Your task to perform on an android device: change notifications settings Image 0: 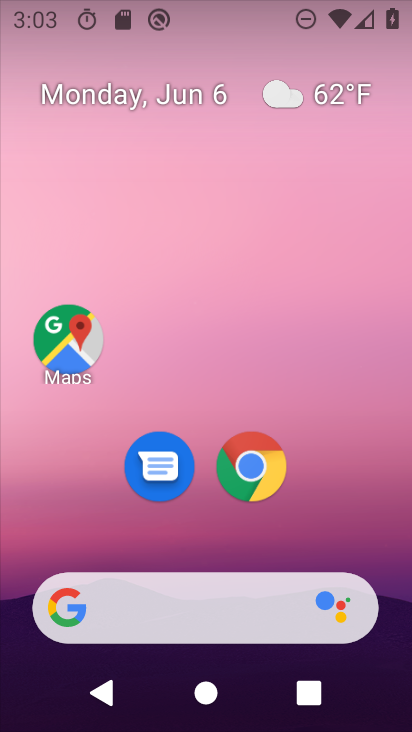
Step 0: drag from (234, 460) to (205, 167)
Your task to perform on an android device: change notifications settings Image 1: 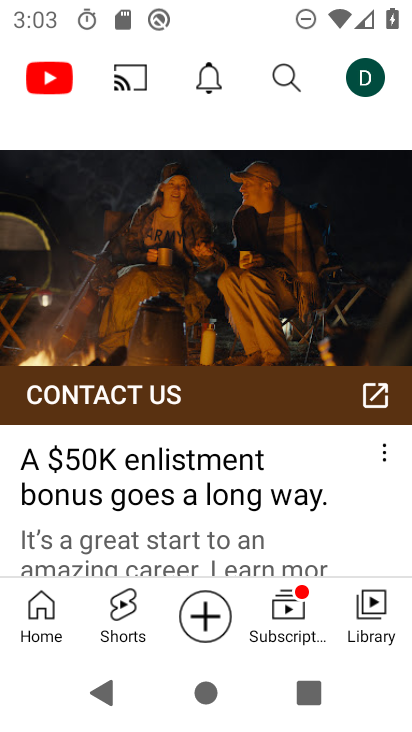
Step 1: press home button
Your task to perform on an android device: change notifications settings Image 2: 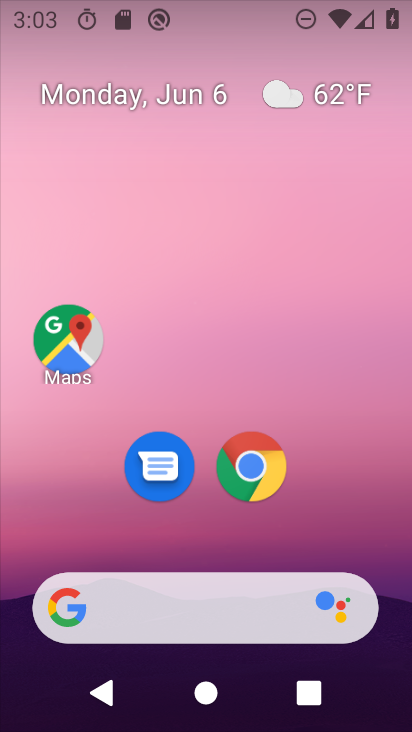
Step 2: drag from (223, 532) to (210, 48)
Your task to perform on an android device: change notifications settings Image 3: 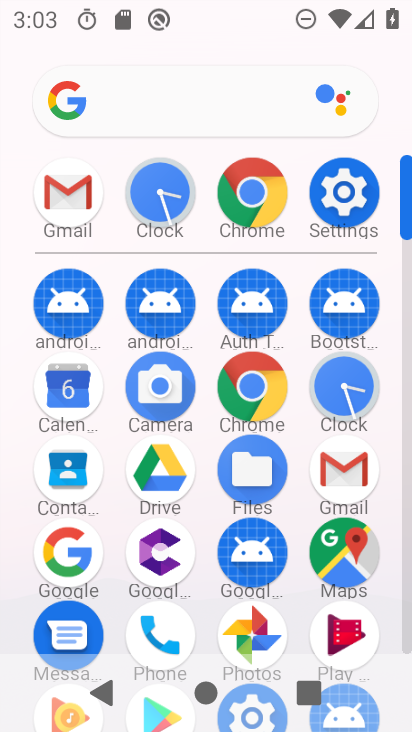
Step 3: click (64, 188)
Your task to perform on an android device: change notifications settings Image 4: 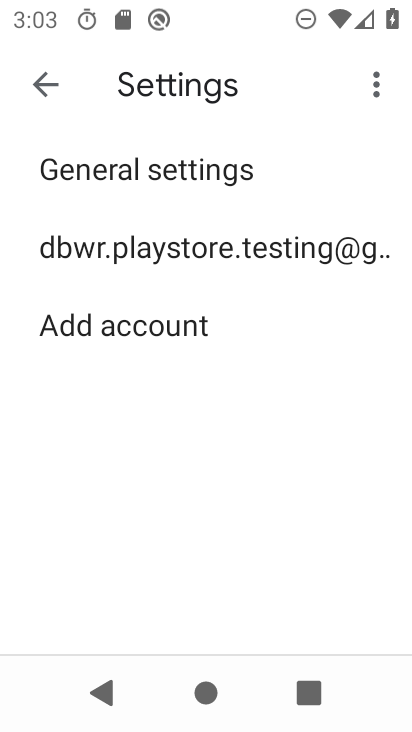
Step 4: click (141, 258)
Your task to perform on an android device: change notifications settings Image 5: 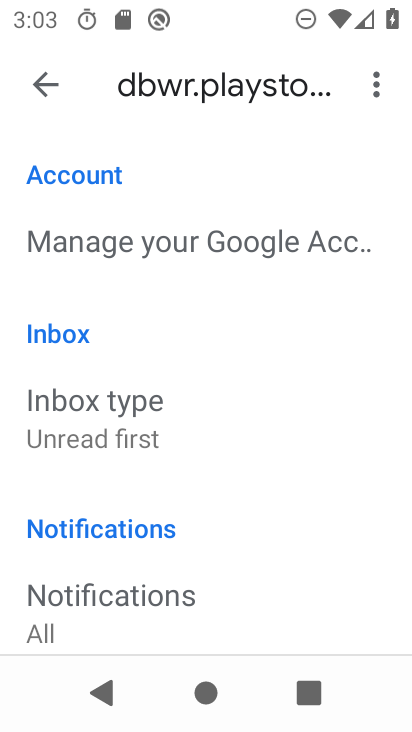
Step 5: click (151, 601)
Your task to perform on an android device: change notifications settings Image 6: 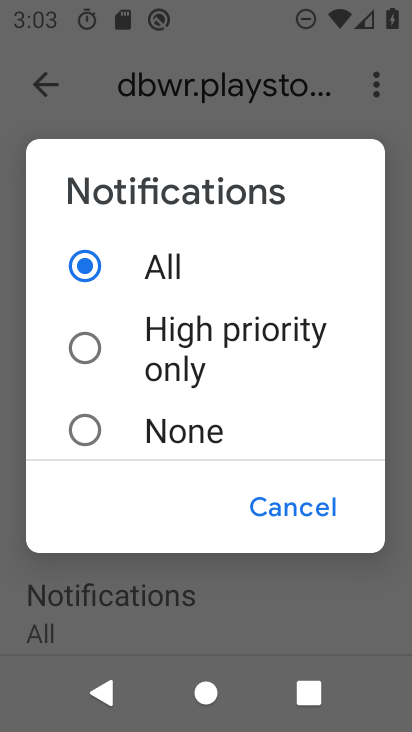
Step 6: click (94, 421)
Your task to perform on an android device: change notifications settings Image 7: 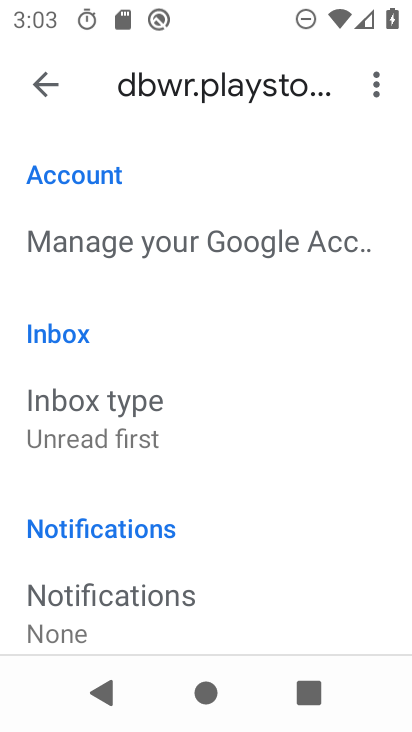
Step 7: task complete